Your task to perform on an android device: See recent photos Image 0: 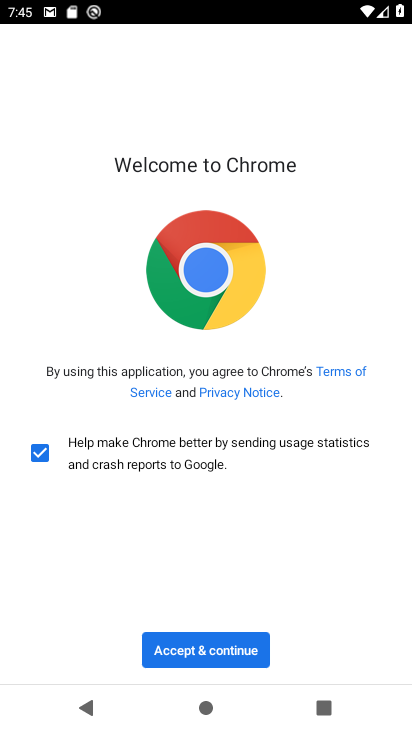
Step 0: press home button
Your task to perform on an android device: See recent photos Image 1: 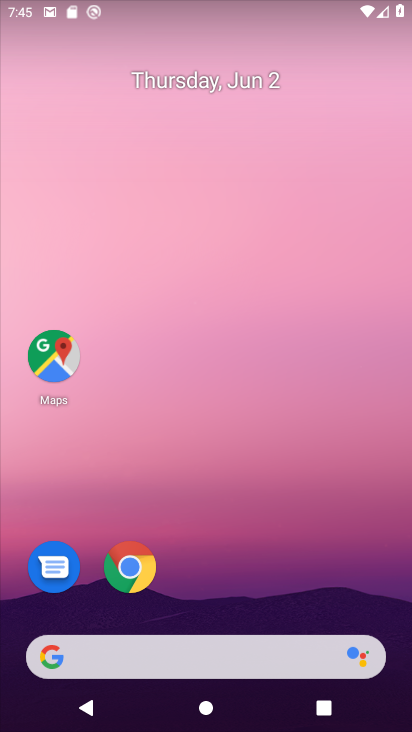
Step 1: drag from (237, 532) to (249, 238)
Your task to perform on an android device: See recent photos Image 2: 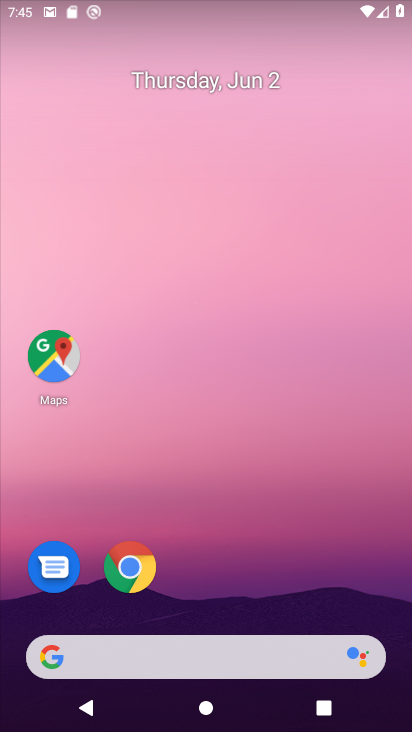
Step 2: drag from (276, 527) to (280, 74)
Your task to perform on an android device: See recent photos Image 3: 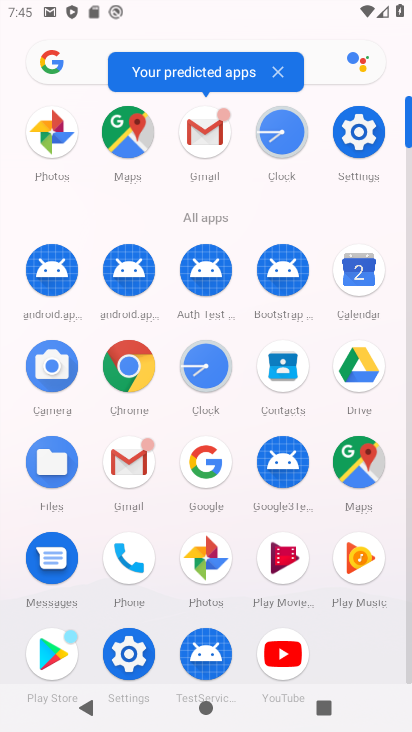
Step 3: click (205, 558)
Your task to perform on an android device: See recent photos Image 4: 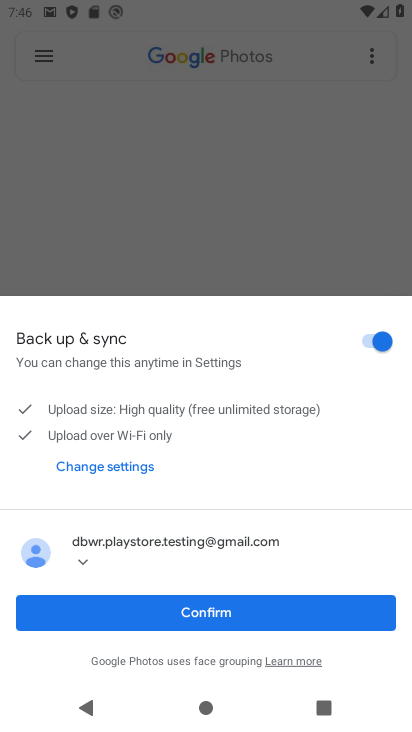
Step 4: click (226, 601)
Your task to perform on an android device: See recent photos Image 5: 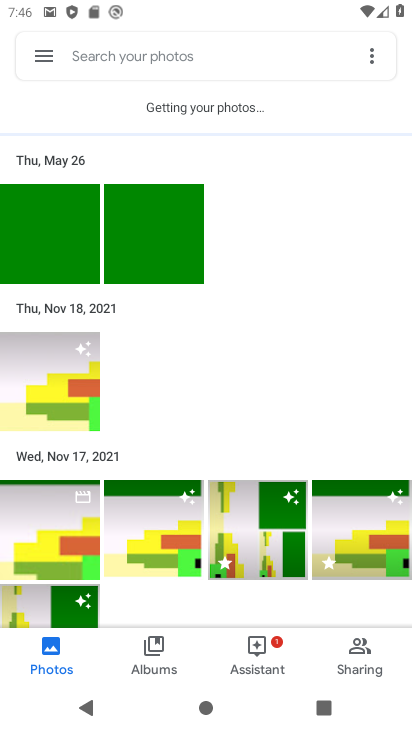
Step 5: task complete